Your task to perform on an android device: open wifi settings Image 0: 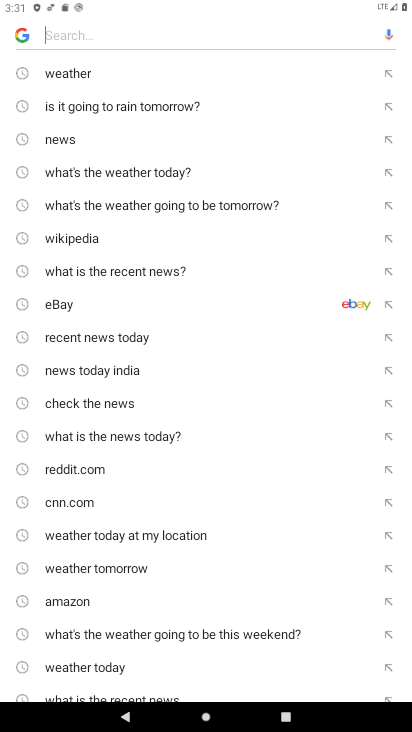
Step 0: press home button
Your task to perform on an android device: open wifi settings Image 1: 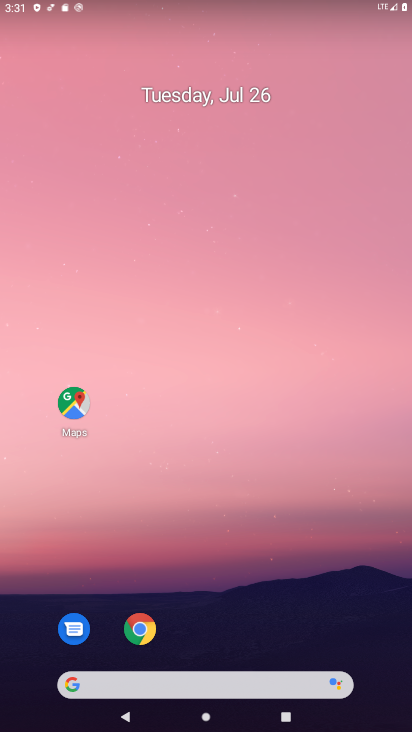
Step 1: drag from (221, 635) to (210, 208)
Your task to perform on an android device: open wifi settings Image 2: 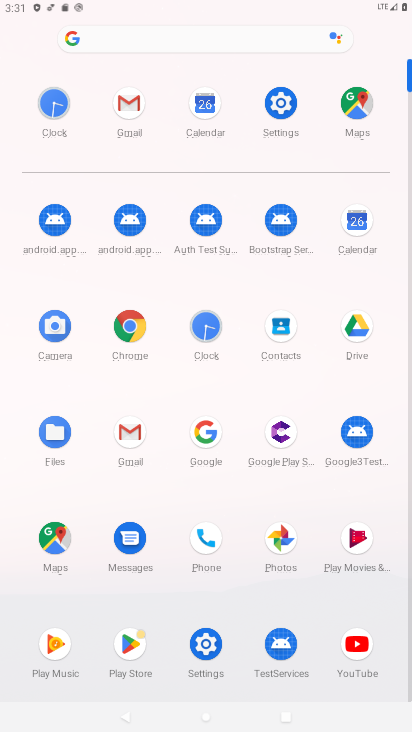
Step 2: click (277, 93)
Your task to perform on an android device: open wifi settings Image 3: 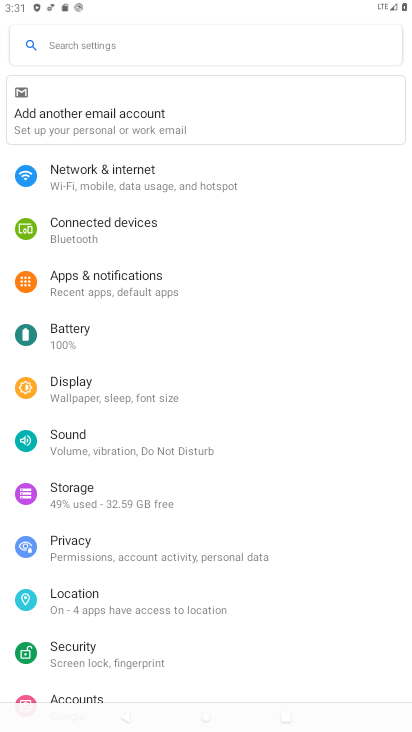
Step 3: click (93, 174)
Your task to perform on an android device: open wifi settings Image 4: 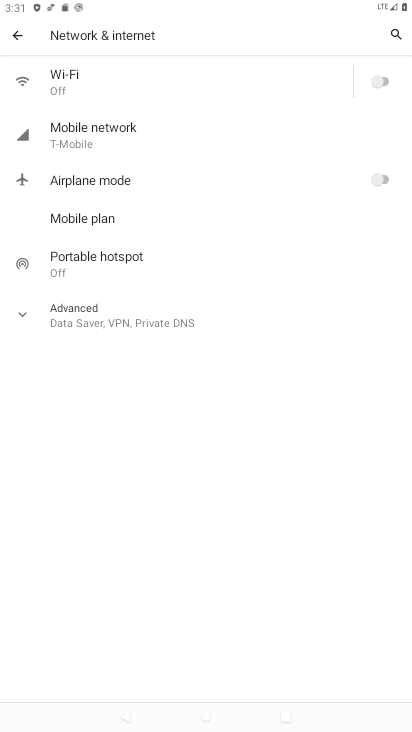
Step 4: click (62, 84)
Your task to perform on an android device: open wifi settings Image 5: 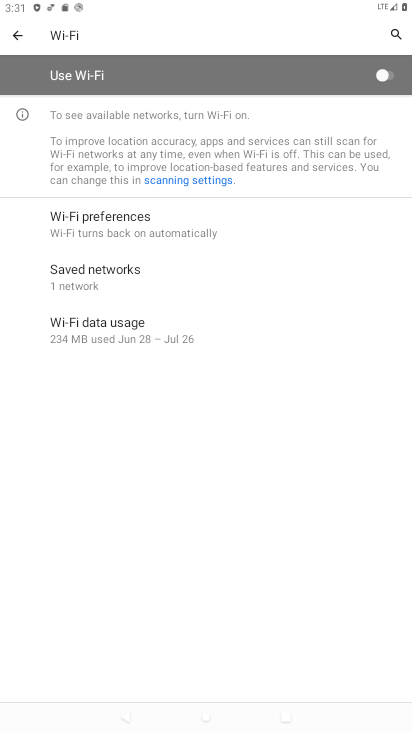
Step 5: task complete